Your task to perform on an android device: turn on the 24-hour format for clock Image 0: 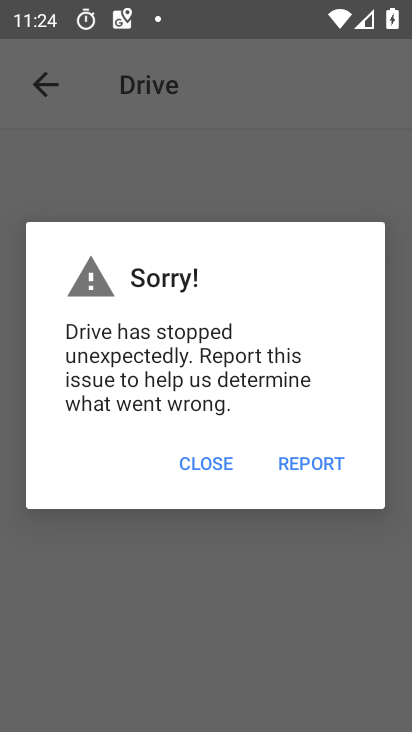
Step 0: press home button
Your task to perform on an android device: turn on the 24-hour format for clock Image 1: 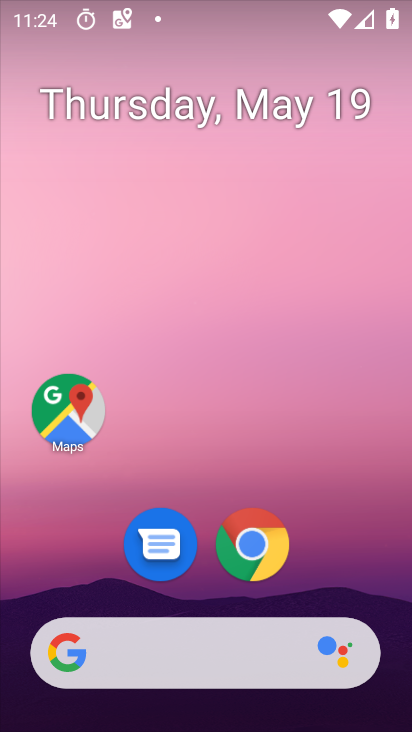
Step 1: drag from (309, 552) to (277, 91)
Your task to perform on an android device: turn on the 24-hour format for clock Image 2: 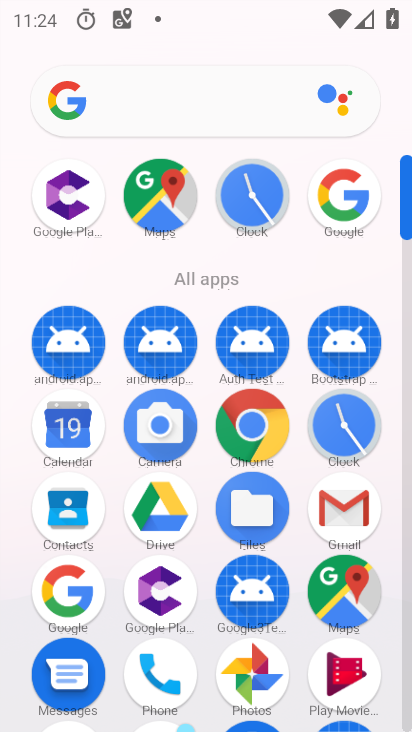
Step 2: click (271, 196)
Your task to perform on an android device: turn on the 24-hour format for clock Image 3: 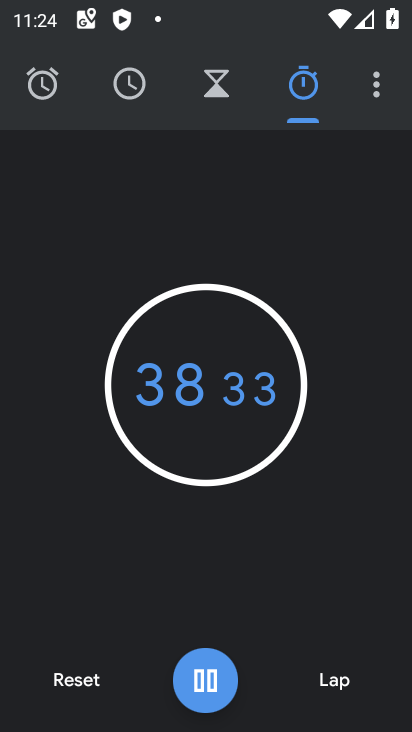
Step 3: click (363, 104)
Your task to perform on an android device: turn on the 24-hour format for clock Image 4: 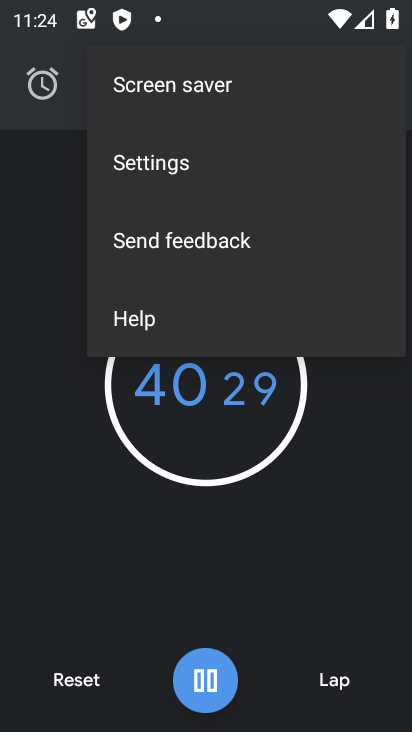
Step 4: click (183, 169)
Your task to perform on an android device: turn on the 24-hour format for clock Image 5: 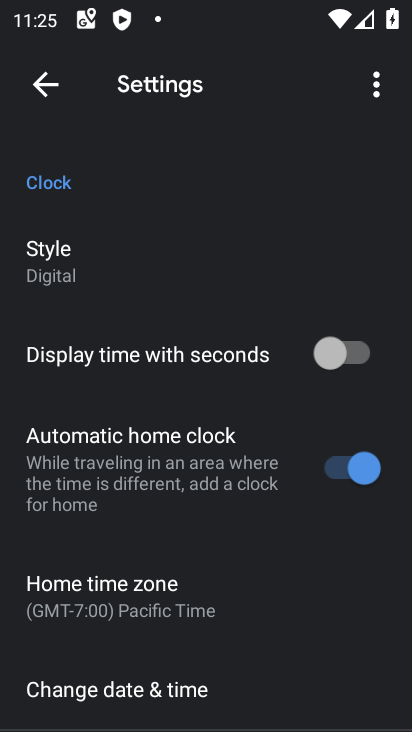
Step 5: drag from (130, 663) to (167, 240)
Your task to perform on an android device: turn on the 24-hour format for clock Image 6: 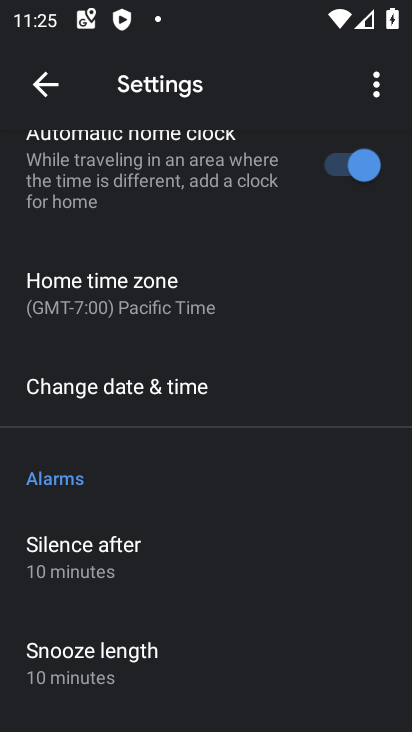
Step 6: click (149, 401)
Your task to perform on an android device: turn on the 24-hour format for clock Image 7: 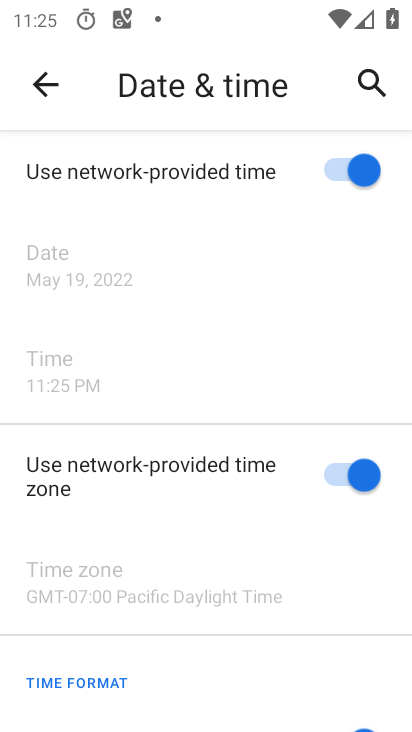
Step 7: drag from (162, 633) to (178, 250)
Your task to perform on an android device: turn on the 24-hour format for clock Image 8: 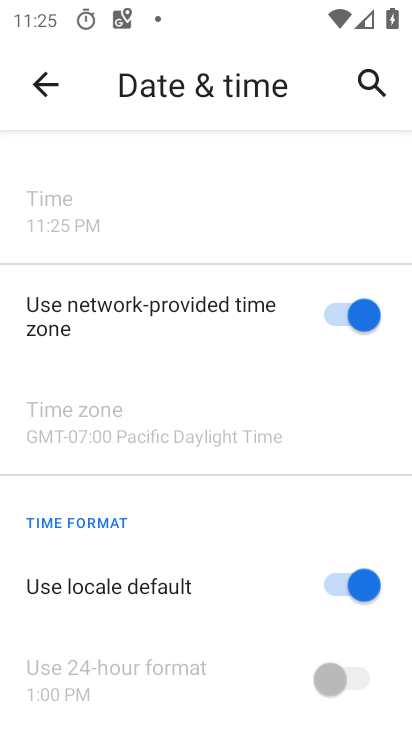
Step 8: click (349, 600)
Your task to perform on an android device: turn on the 24-hour format for clock Image 9: 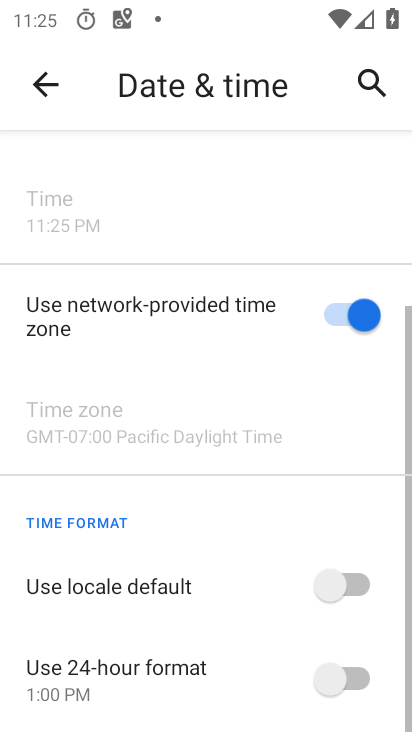
Step 9: task complete